Your task to perform on an android device: toggle data saver in the chrome app Image 0: 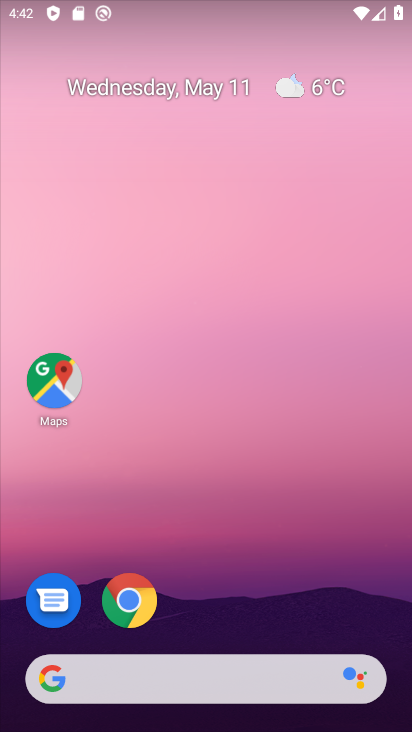
Step 0: click (279, 590)
Your task to perform on an android device: toggle data saver in the chrome app Image 1: 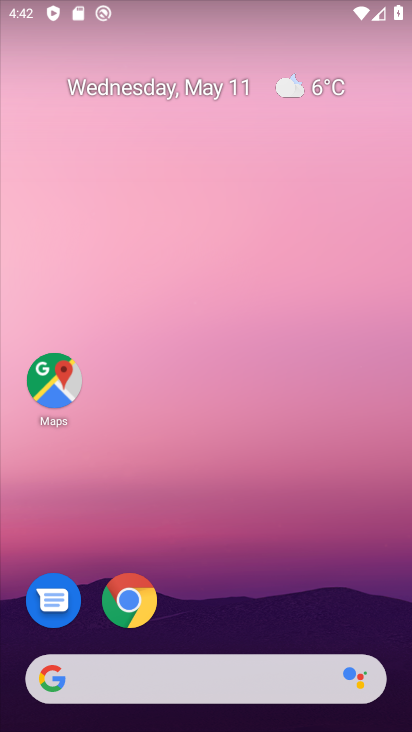
Step 1: click (141, 604)
Your task to perform on an android device: toggle data saver in the chrome app Image 2: 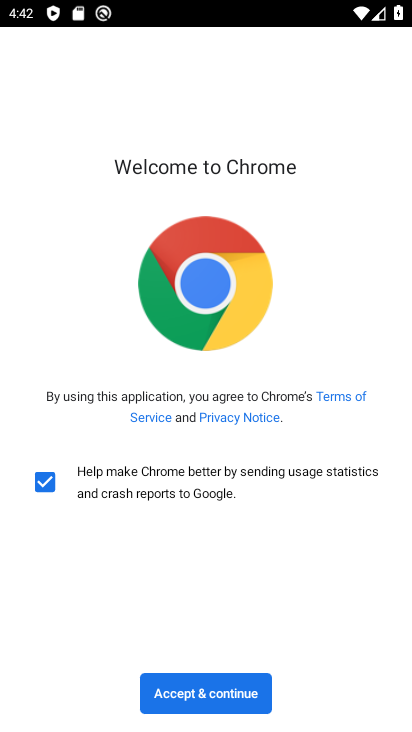
Step 2: click (224, 679)
Your task to perform on an android device: toggle data saver in the chrome app Image 3: 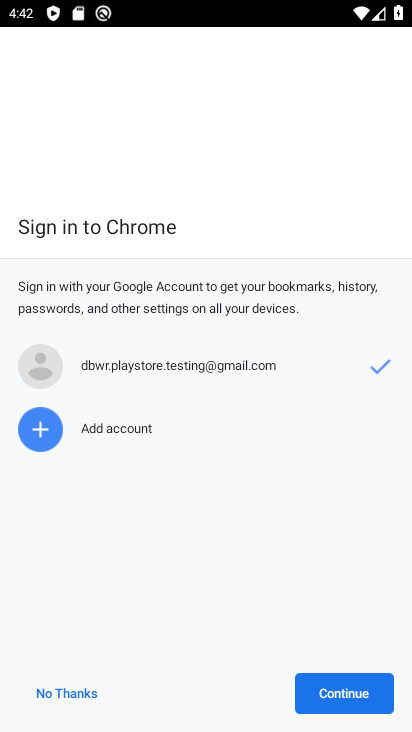
Step 3: click (356, 695)
Your task to perform on an android device: toggle data saver in the chrome app Image 4: 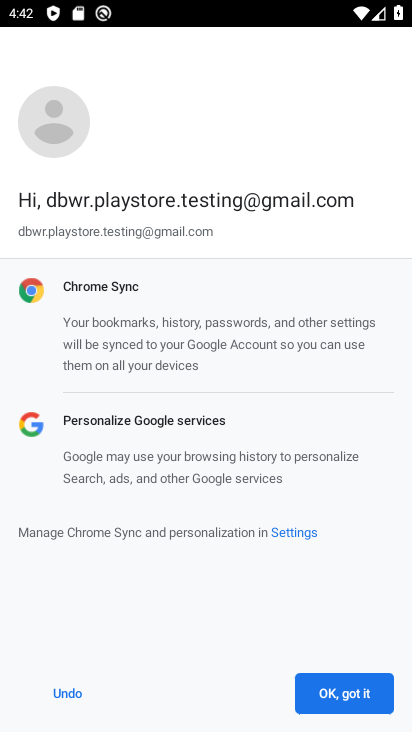
Step 4: click (355, 692)
Your task to perform on an android device: toggle data saver in the chrome app Image 5: 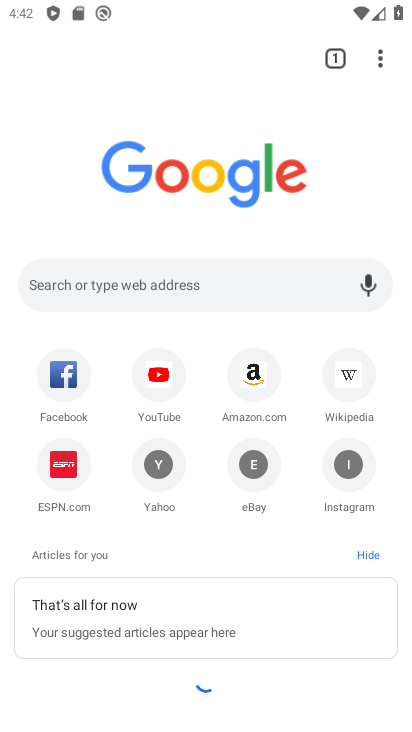
Step 5: drag from (384, 57) to (188, 494)
Your task to perform on an android device: toggle data saver in the chrome app Image 6: 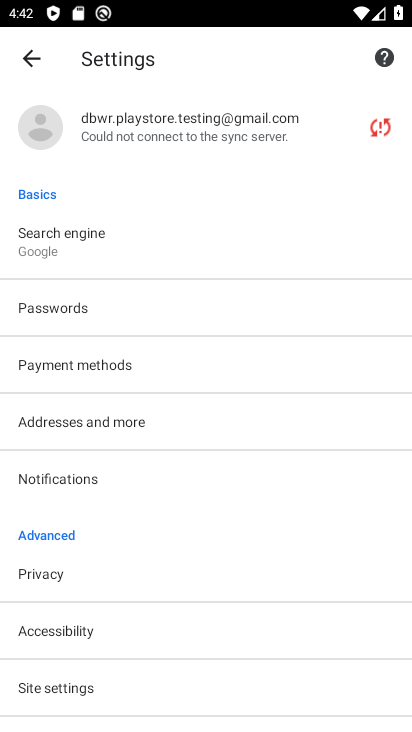
Step 6: drag from (235, 656) to (260, 261)
Your task to perform on an android device: toggle data saver in the chrome app Image 7: 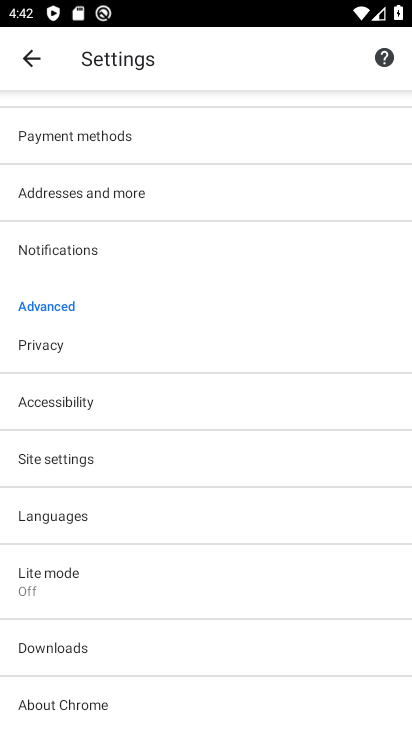
Step 7: click (99, 573)
Your task to perform on an android device: toggle data saver in the chrome app Image 8: 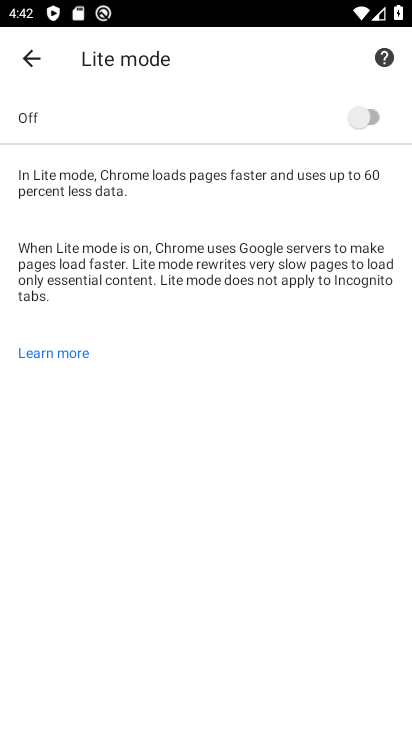
Step 8: click (344, 110)
Your task to perform on an android device: toggle data saver in the chrome app Image 9: 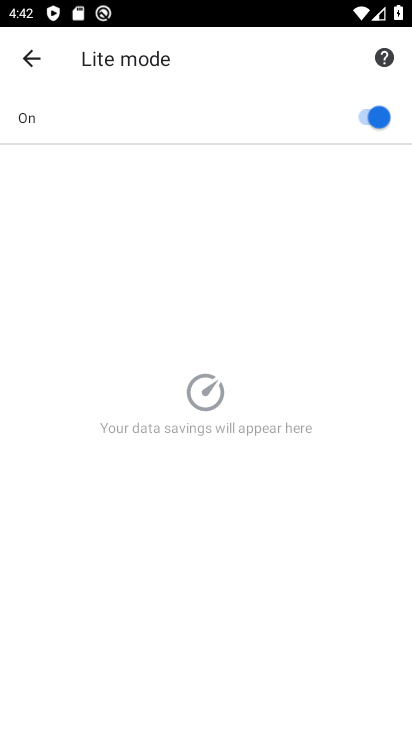
Step 9: task complete